Your task to perform on an android device: toggle airplane mode Image 0: 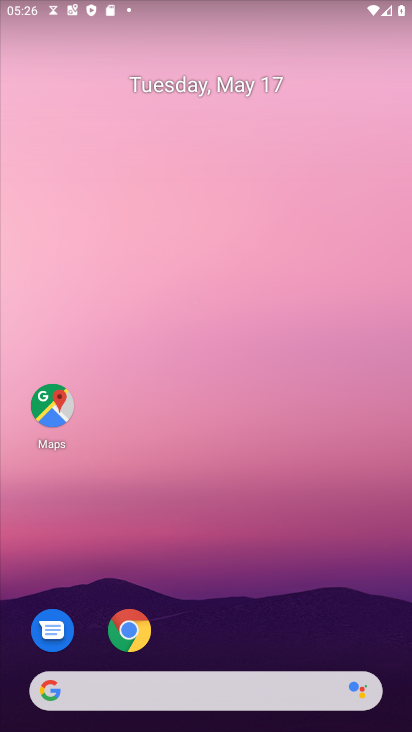
Step 0: drag from (236, 5) to (279, 364)
Your task to perform on an android device: toggle airplane mode Image 1: 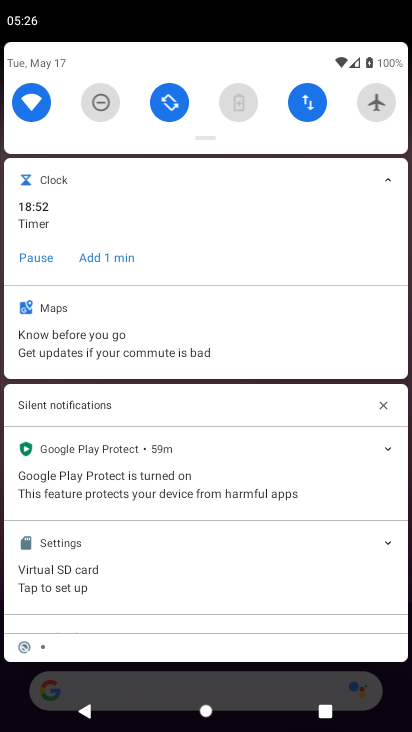
Step 1: click (382, 97)
Your task to perform on an android device: toggle airplane mode Image 2: 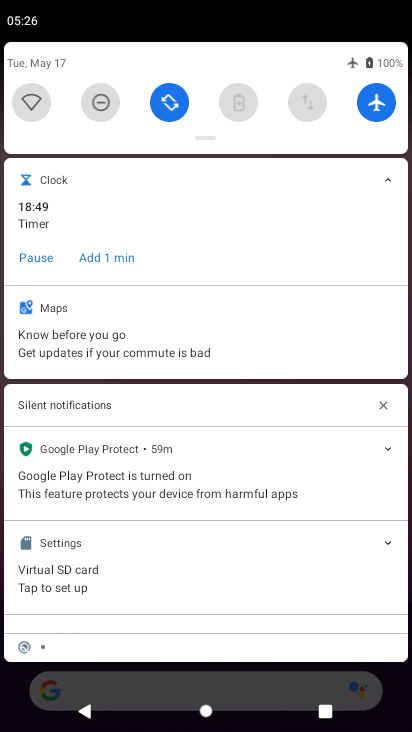
Step 2: task complete